Your task to perform on an android device: open app "LinkedIn" (install if not already installed) and go to login screen Image 0: 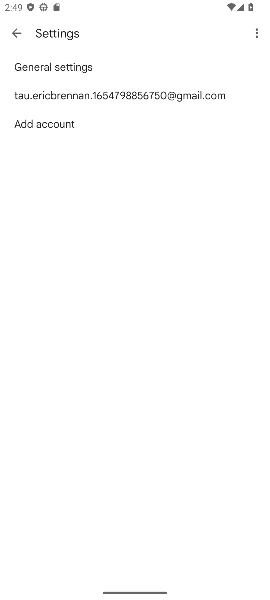
Step 0: press home button
Your task to perform on an android device: open app "LinkedIn" (install if not already installed) and go to login screen Image 1: 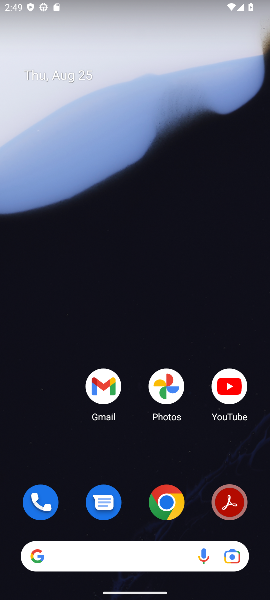
Step 1: drag from (132, 526) to (157, 68)
Your task to perform on an android device: open app "LinkedIn" (install if not already installed) and go to login screen Image 2: 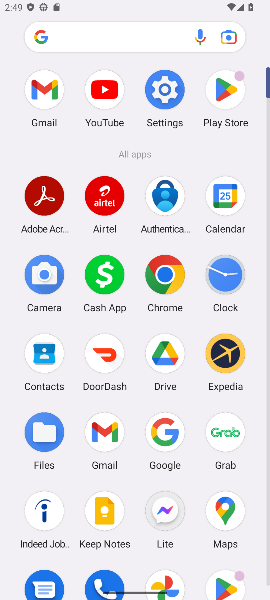
Step 2: click (217, 86)
Your task to perform on an android device: open app "LinkedIn" (install if not already installed) and go to login screen Image 3: 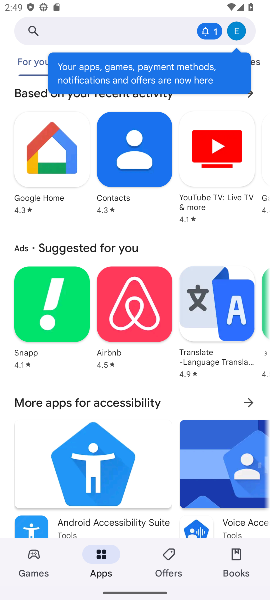
Step 3: click (164, 28)
Your task to perform on an android device: open app "LinkedIn" (install if not already installed) and go to login screen Image 4: 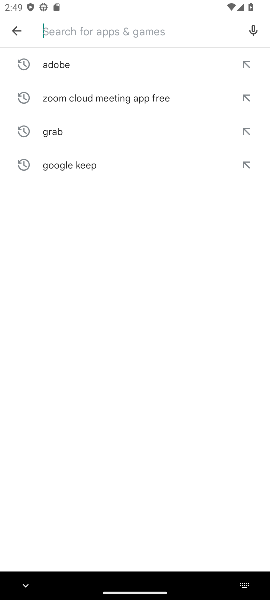
Step 4: type "linkedin"
Your task to perform on an android device: open app "LinkedIn" (install if not already installed) and go to login screen Image 5: 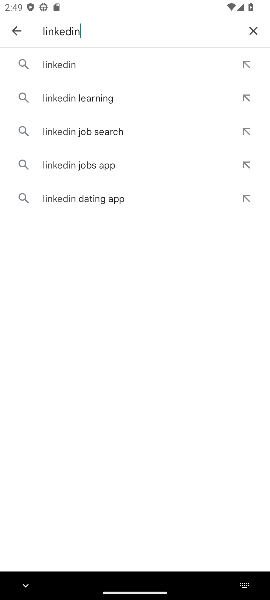
Step 5: click (47, 66)
Your task to perform on an android device: open app "LinkedIn" (install if not already installed) and go to login screen Image 6: 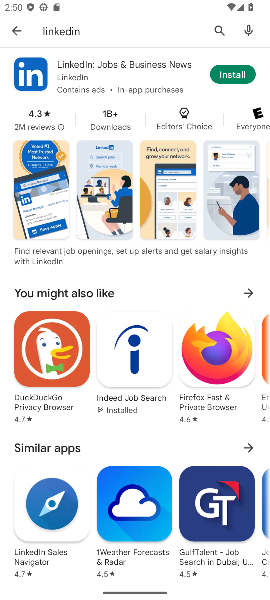
Step 6: click (241, 71)
Your task to perform on an android device: open app "LinkedIn" (install if not already installed) and go to login screen Image 7: 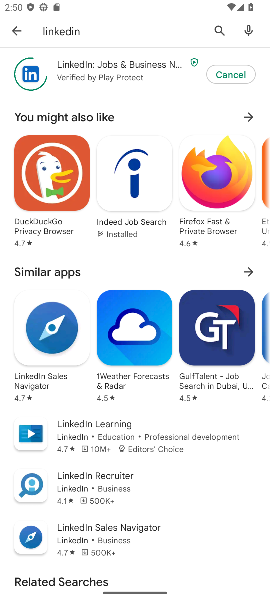
Step 7: task complete